Your task to perform on an android device: turn on sleep mode Image 0: 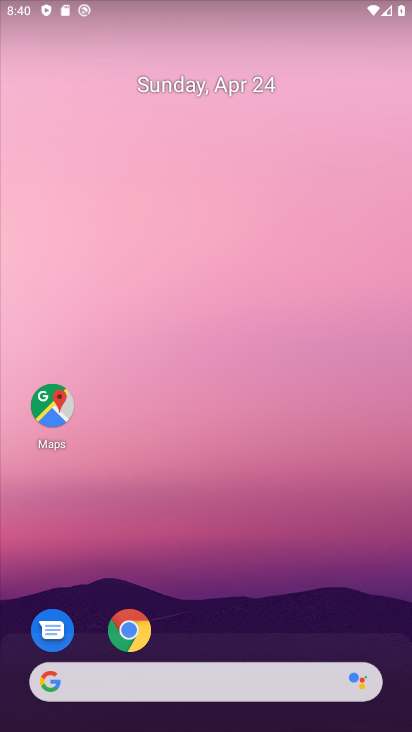
Step 0: drag from (172, 668) to (277, 253)
Your task to perform on an android device: turn on sleep mode Image 1: 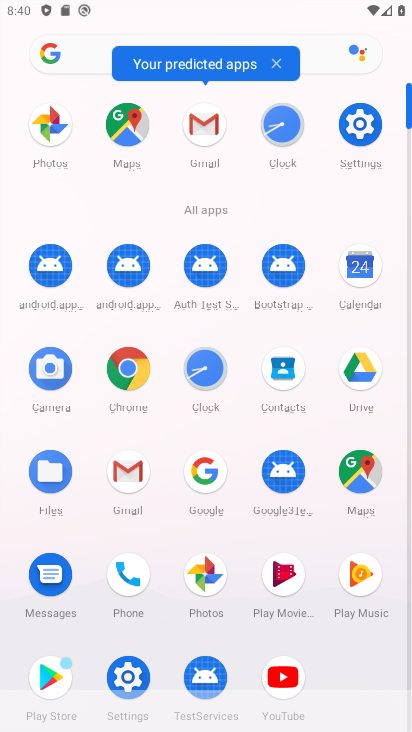
Step 1: click (357, 125)
Your task to perform on an android device: turn on sleep mode Image 2: 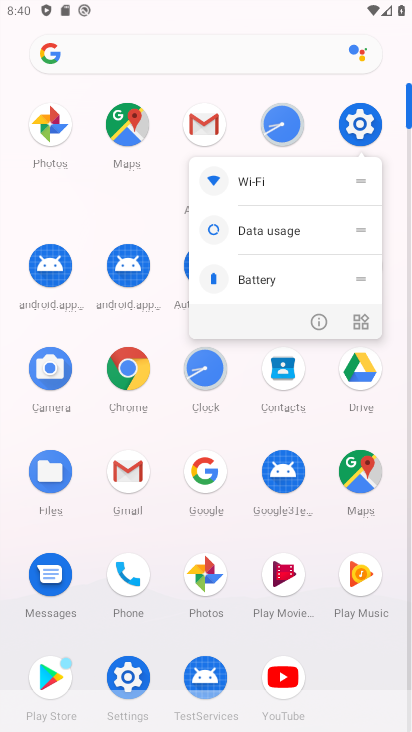
Step 2: click (311, 324)
Your task to perform on an android device: turn on sleep mode Image 3: 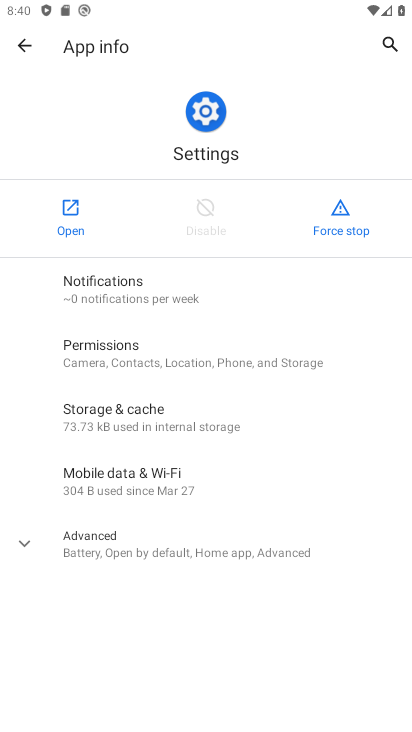
Step 3: click (77, 224)
Your task to perform on an android device: turn on sleep mode Image 4: 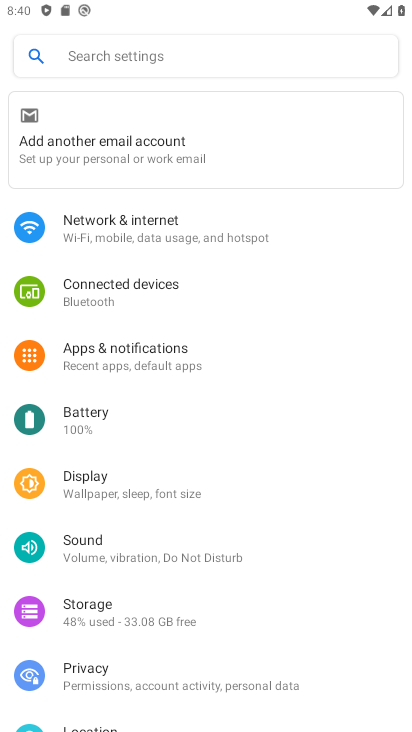
Step 4: click (168, 499)
Your task to perform on an android device: turn on sleep mode Image 5: 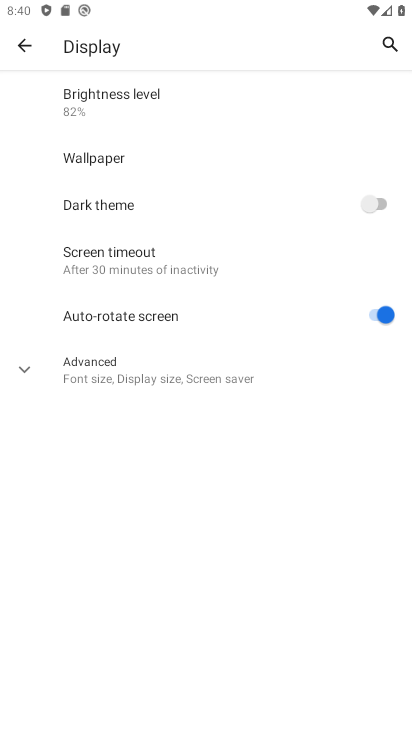
Step 5: task complete